Your task to perform on an android device: turn on translation in the chrome app Image 0: 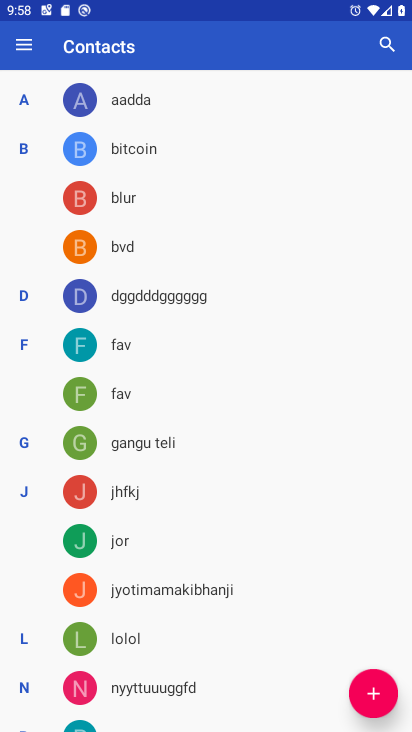
Step 0: press home button
Your task to perform on an android device: turn on translation in the chrome app Image 1: 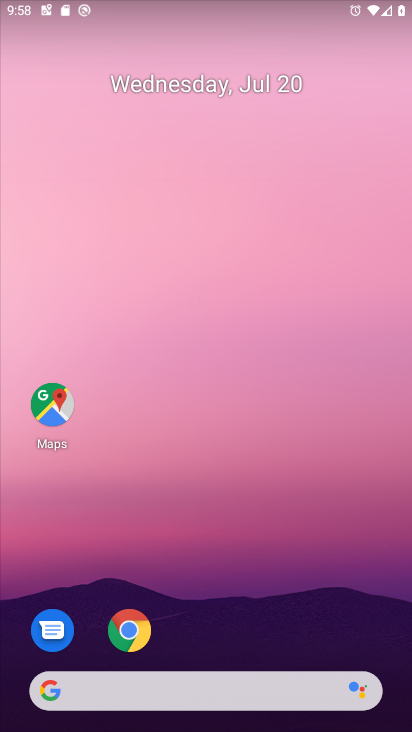
Step 1: click (126, 631)
Your task to perform on an android device: turn on translation in the chrome app Image 2: 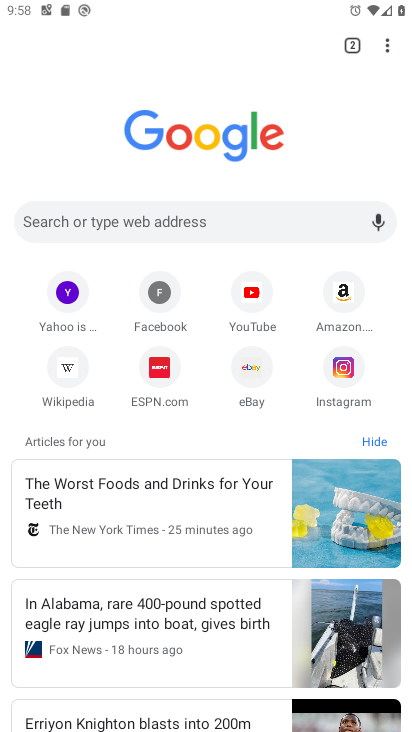
Step 2: drag from (392, 41) to (239, 379)
Your task to perform on an android device: turn on translation in the chrome app Image 3: 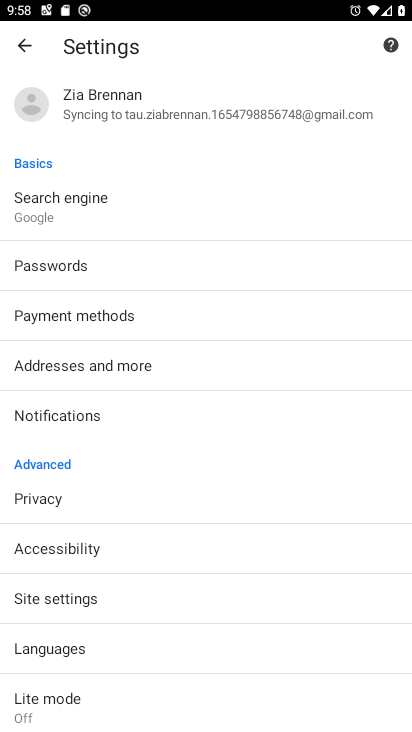
Step 3: click (62, 662)
Your task to perform on an android device: turn on translation in the chrome app Image 4: 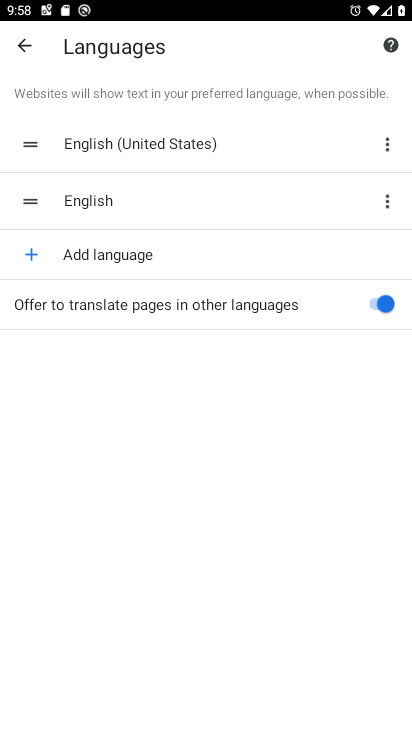
Step 4: task complete